Your task to perform on an android device: Go to settings Image 0: 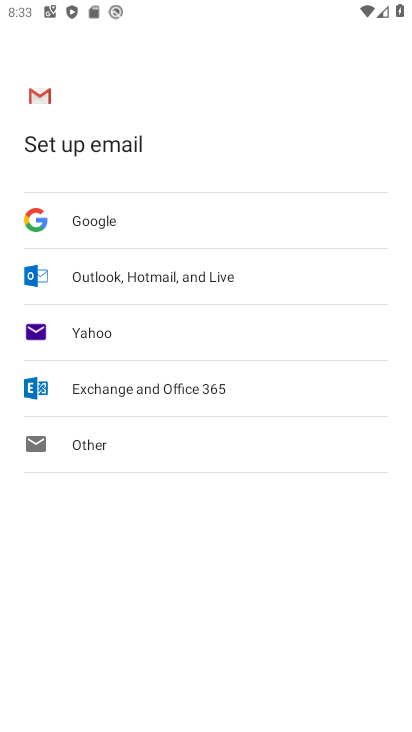
Step 0: press home button
Your task to perform on an android device: Go to settings Image 1: 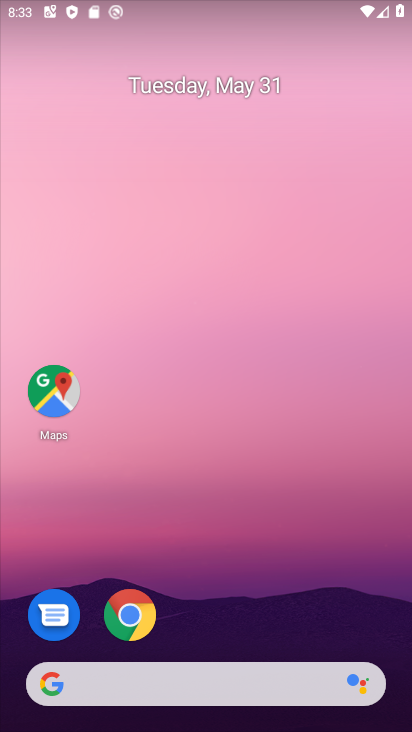
Step 1: drag from (340, 624) to (266, 142)
Your task to perform on an android device: Go to settings Image 2: 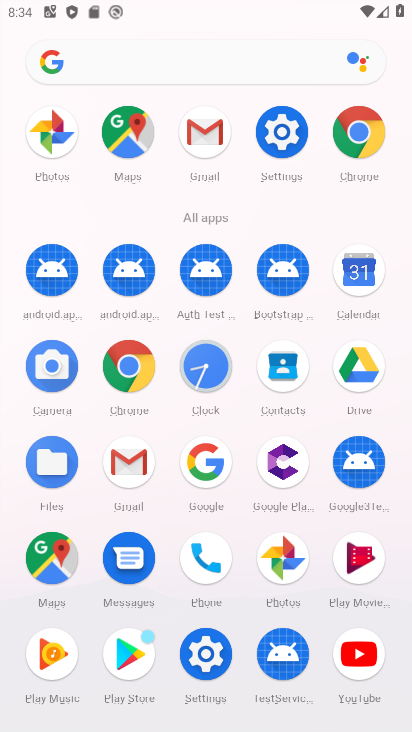
Step 2: click (204, 649)
Your task to perform on an android device: Go to settings Image 3: 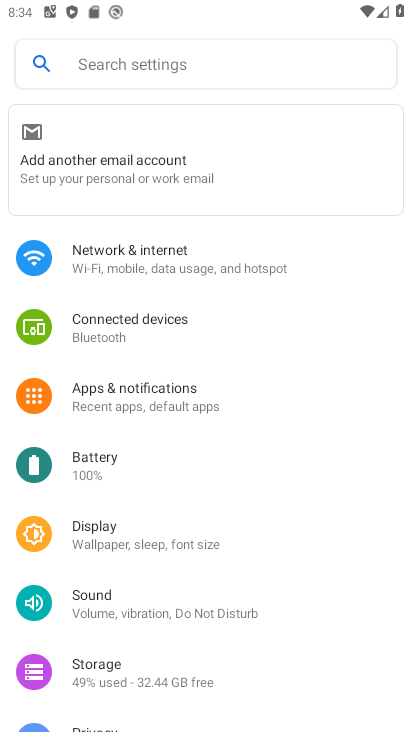
Step 3: task complete